Your task to perform on an android device: see tabs open on other devices in the chrome app Image 0: 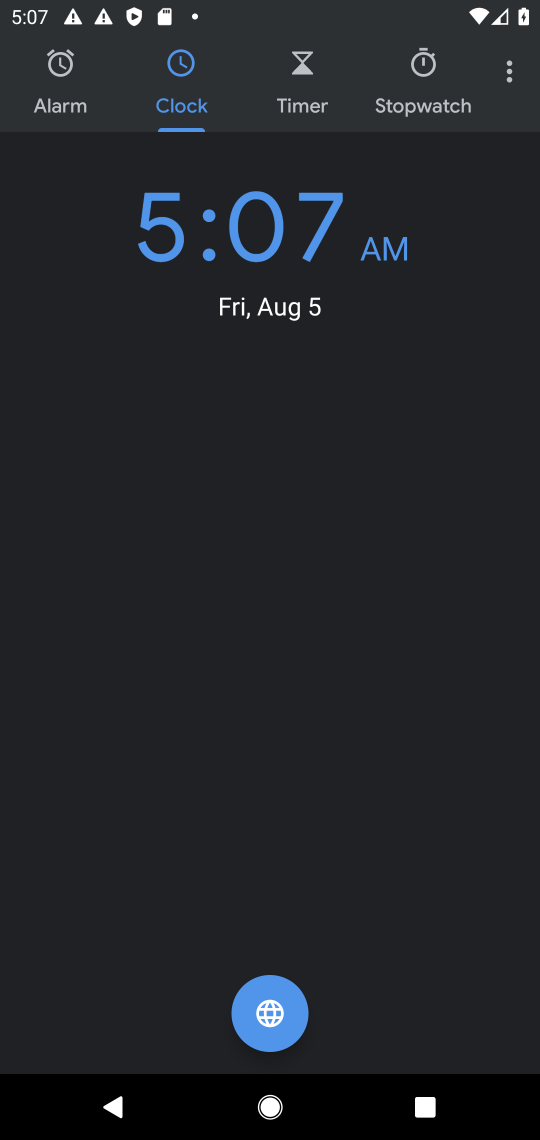
Step 0: press home button
Your task to perform on an android device: see tabs open on other devices in the chrome app Image 1: 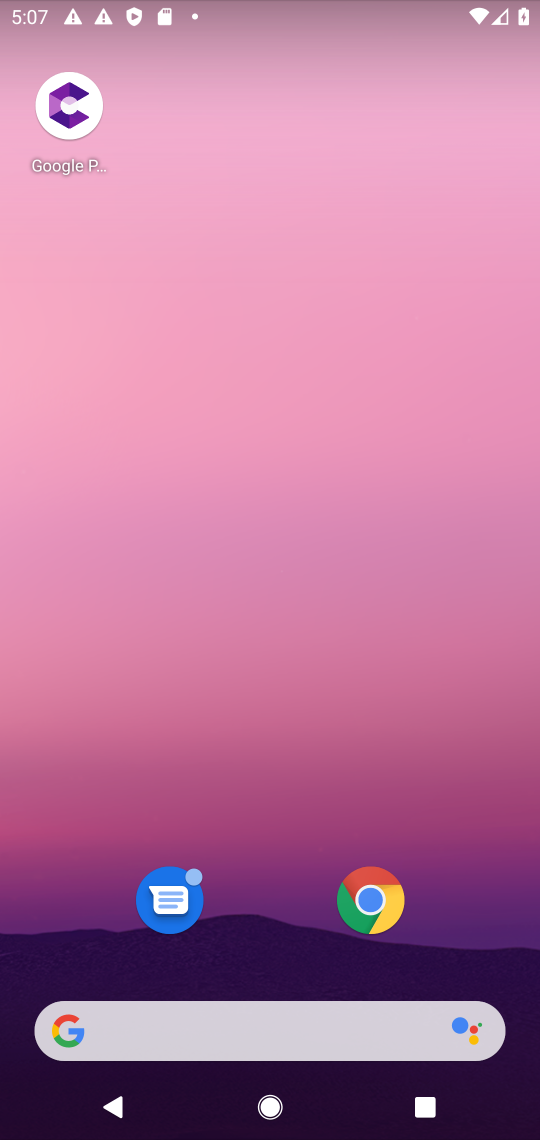
Step 1: click (359, 926)
Your task to perform on an android device: see tabs open on other devices in the chrome app Image 2: 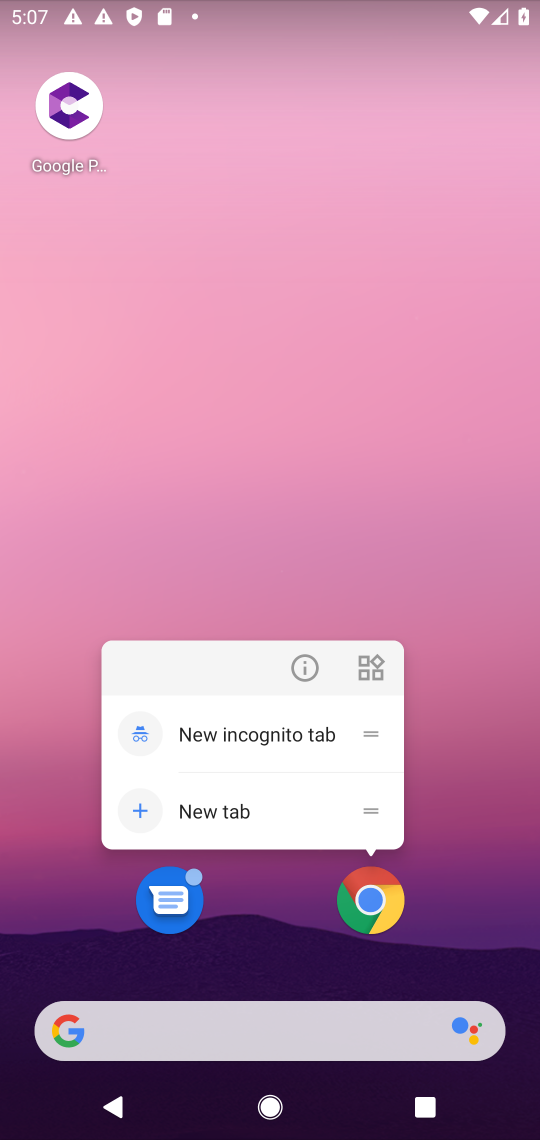
Step 2: click (359, 926)
Your task to perform on an android device: see tabs open on other devices in the chrome app Image 3: 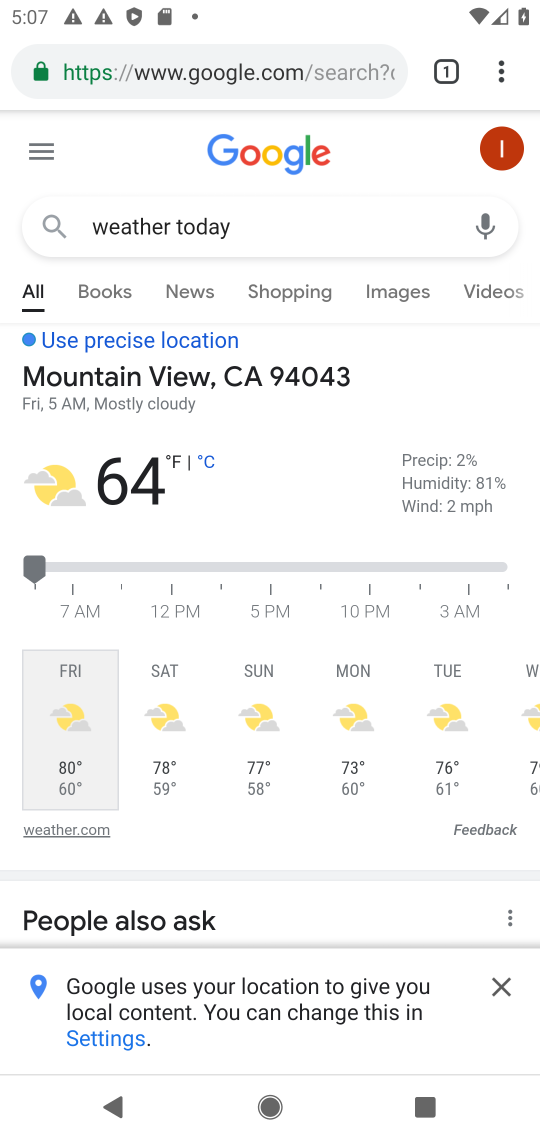
Step 3: task complete